Your task to perform on an android device: Go to privacy settings Image 0: 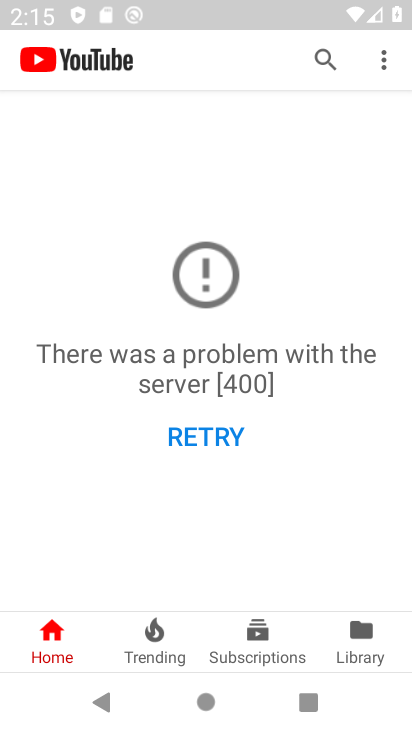
Step 0: press home button
Your task to perform on an android device: Go to privacy settings Image 1: 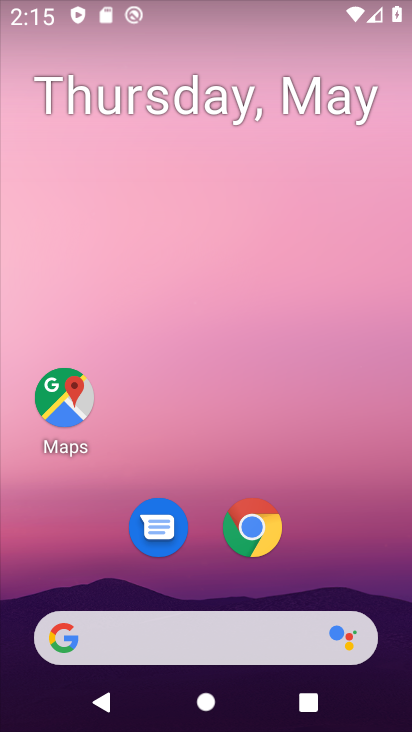
Step 1: drag from (362, 536) to (335, 48)
Your task to perform on an android device: Go to privacy settings Image 2: 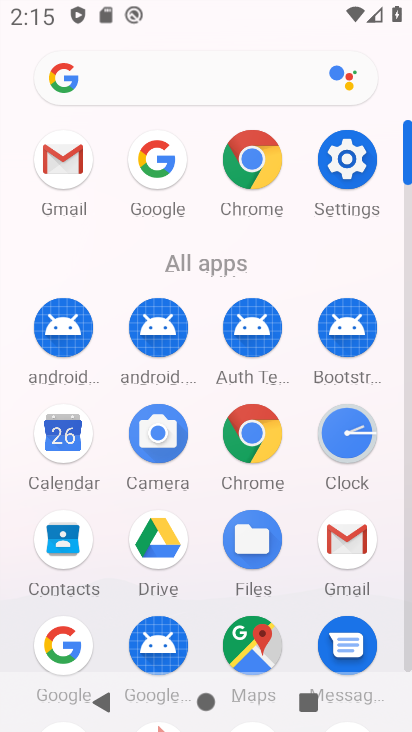
Step 2: click (363, 143)
Your task to perform on an android device: Go to privacy settings Image 3: 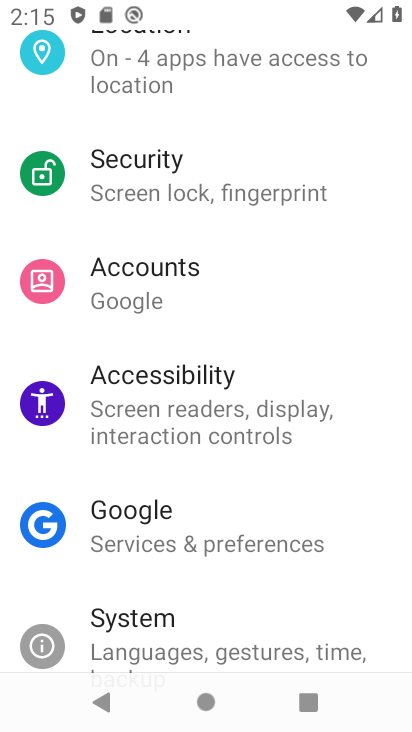
Step 3: drag from (161, 565) to (208, 260)
Your task to perform on an android device: Go to privacy settings Image 4: 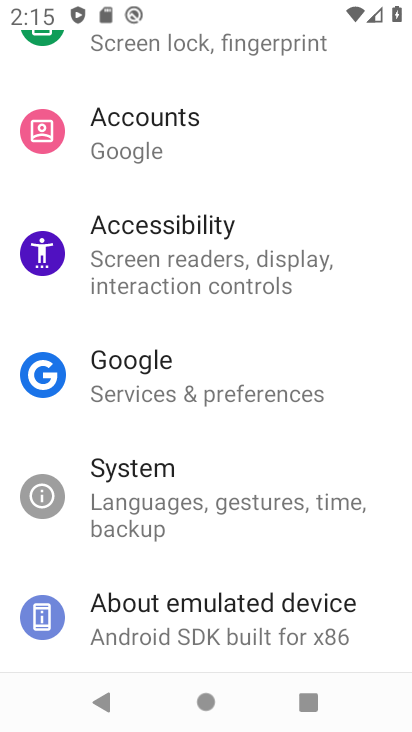
Step 4: click (310, 716)
Your task to perform on an android device: Go to privacy settings Image 5: 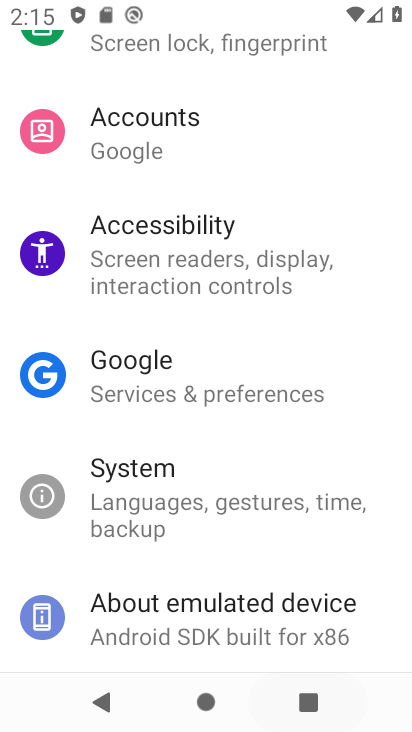
Step 5: drag from (287, 91) to (365, 731)
Your task to perform on an android device: Go to privacy settings Image 6: 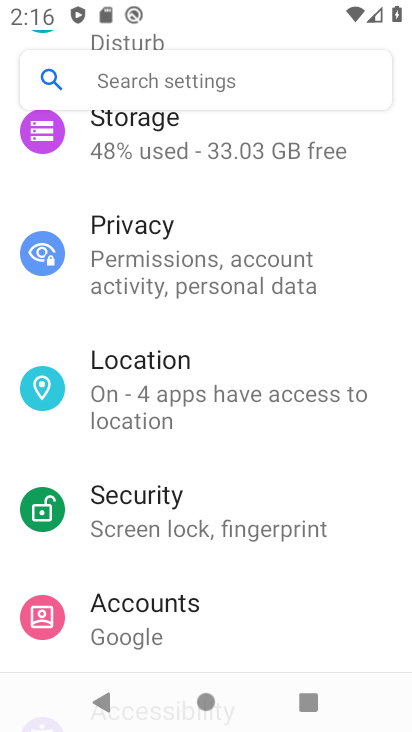
Step 6: click (313, 279)
Your task to perform on an android device: Go to privacy settings Image 7: 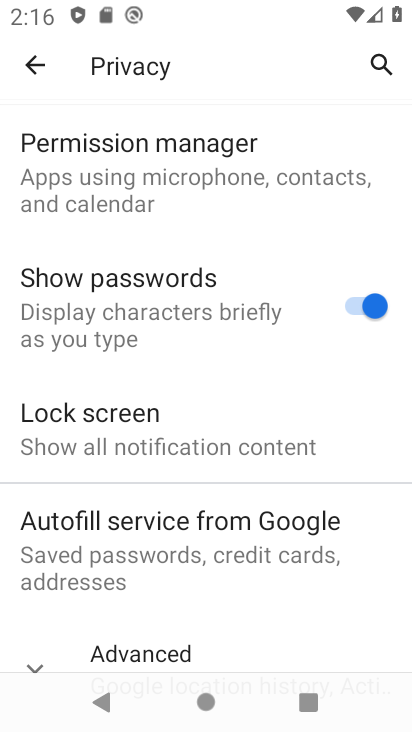
Step 7: task complete